Your task to perform on an android device: Open internet settings Image 0: 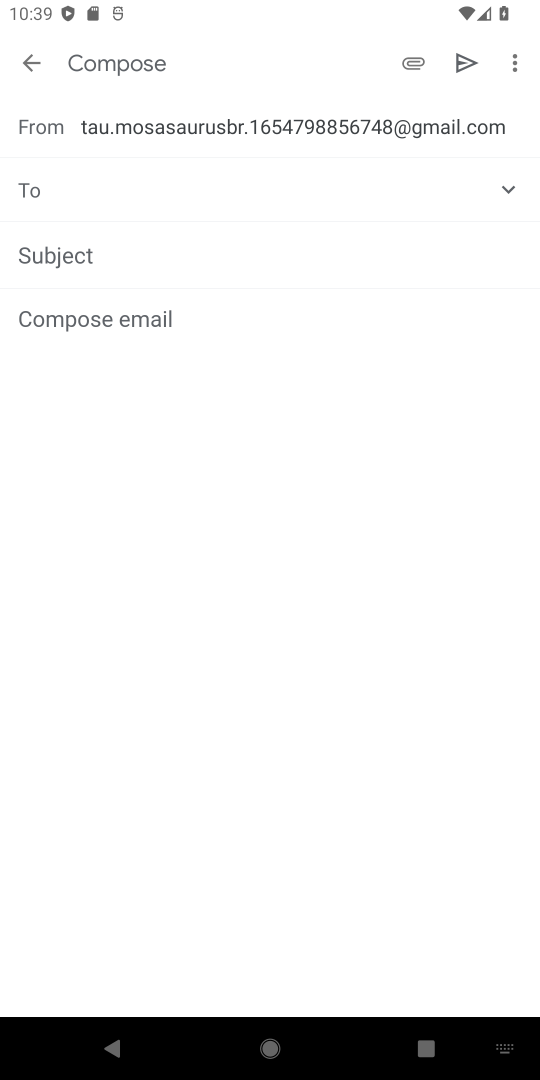
Step 0: press home button
Your task to perform on an android device: Open internet settings Image 1: 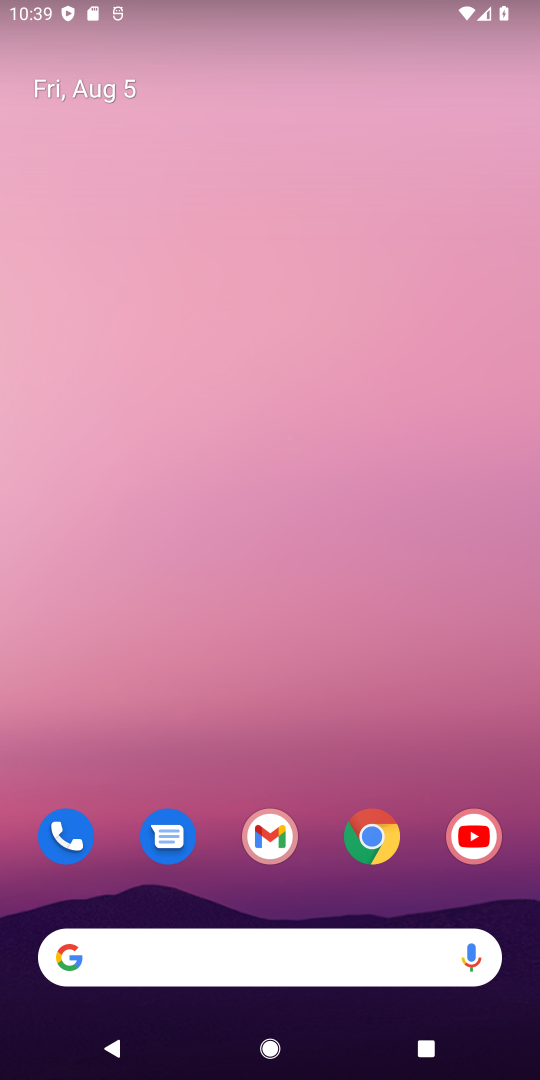
Step 1: drag from (315, 871) to (314, 171)
Your task to perform on an android device: Open internet settings Image 2: 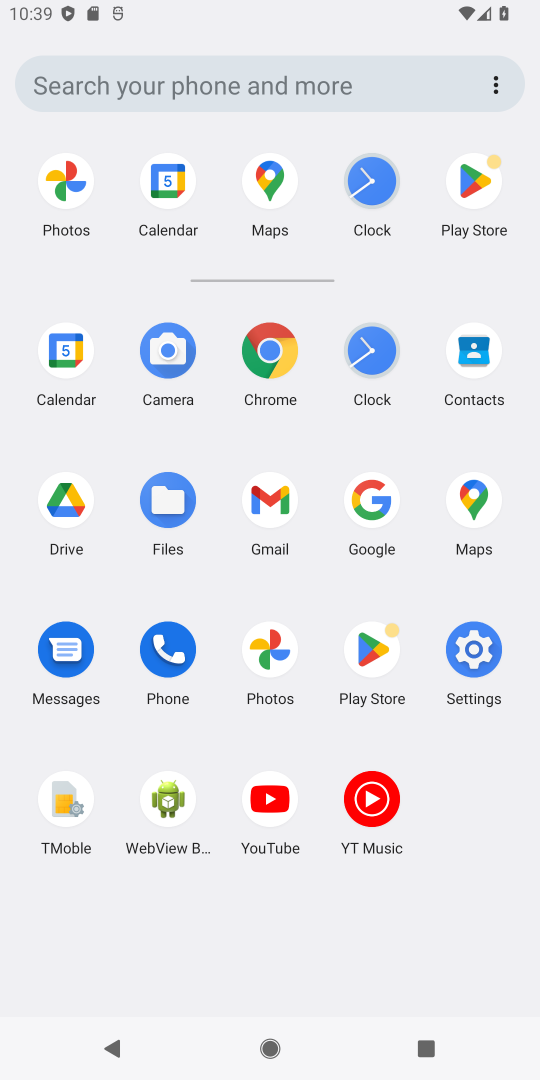
Step 2: click (463, 661)
Your task to perform on an android device: Open internet settings Image 3: 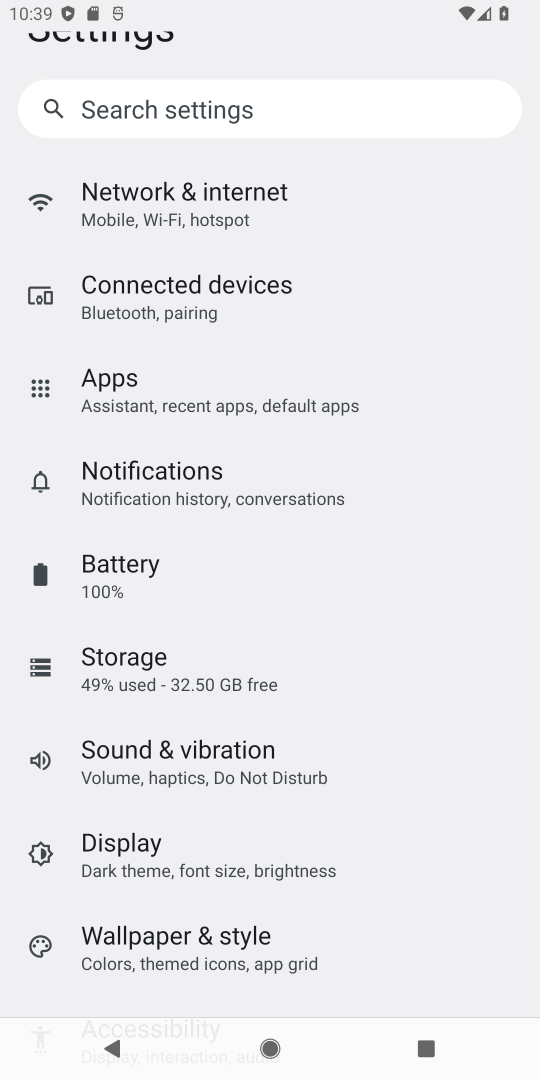
Step 3: click (180, 206)
Your task to perform on an android device: Open internet settings Image 4: 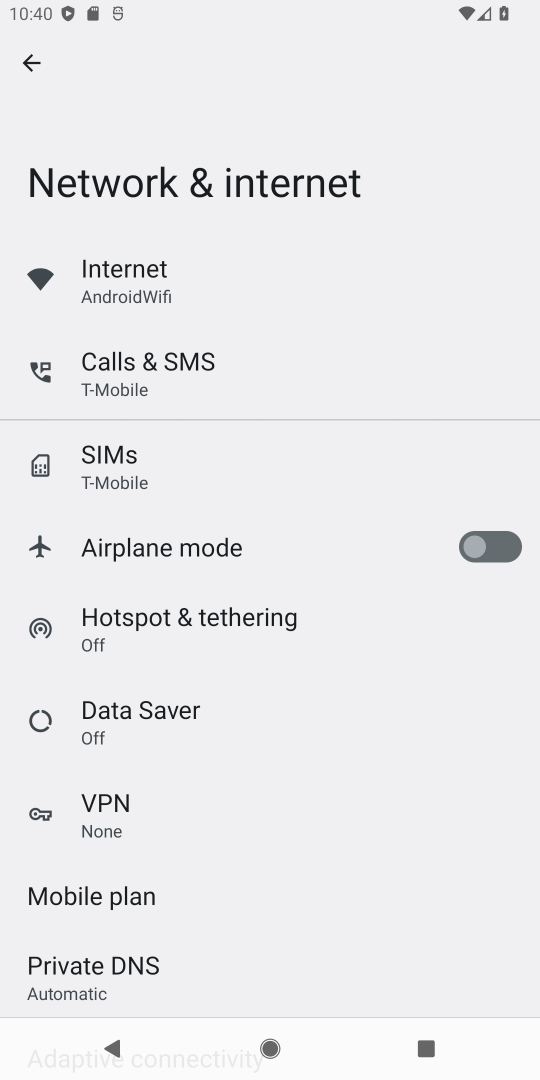
Step 4: click (147, 279)
Your task to perform on an android device: Open internet settings Image 5: 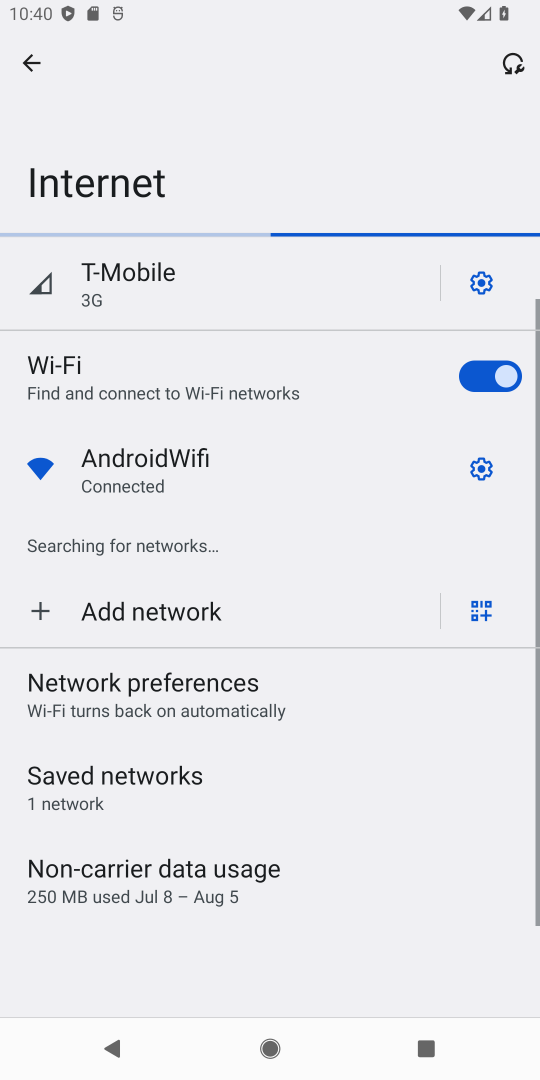
Step 5: task complete